Your task to perform on an android device: Open settings on Google Maps Image 0: 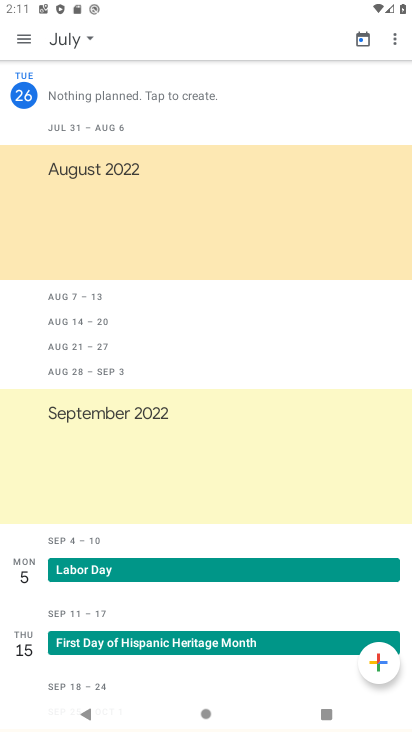
Step 0: press home button
Your task to perform on an android device: Open settings on Google Maps Image 1: 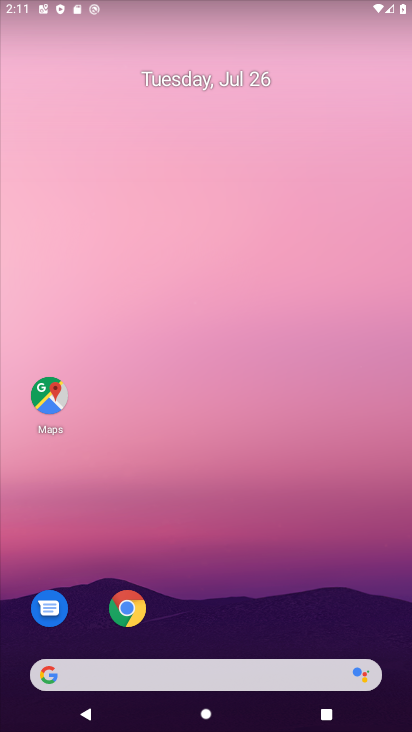
Step 1: drag from (268, 658) to (229, 5)
Your task to perform on an android device: Open settings on Google Maps Image 2: 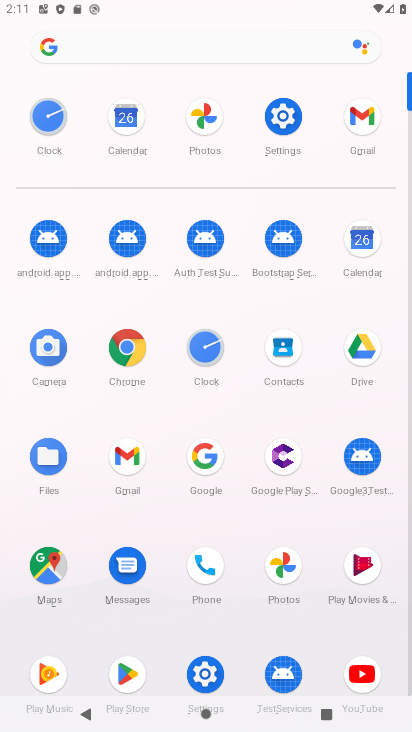
Step 2: click (54, 598)
Your task to perform on an android device: Open settings on Google Maps Image 3: 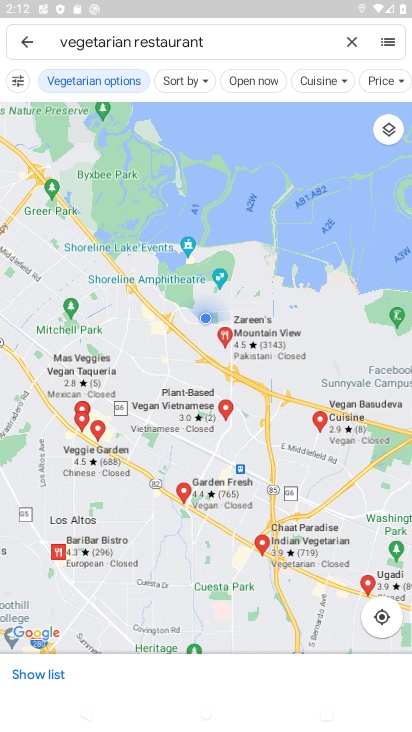
Step 3: click (372, 52)
Your task to perform on an android device: Open settings on Google Maps Image 4: 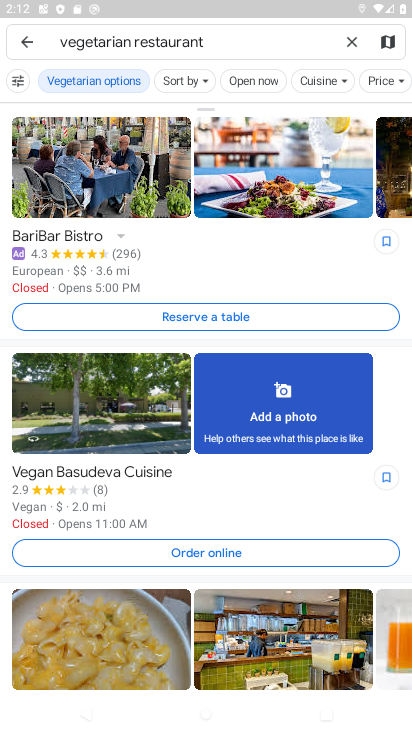
Step 4: task complete